Your task to perform on an android device: turn on priority inbox in the gmail app Image 0: 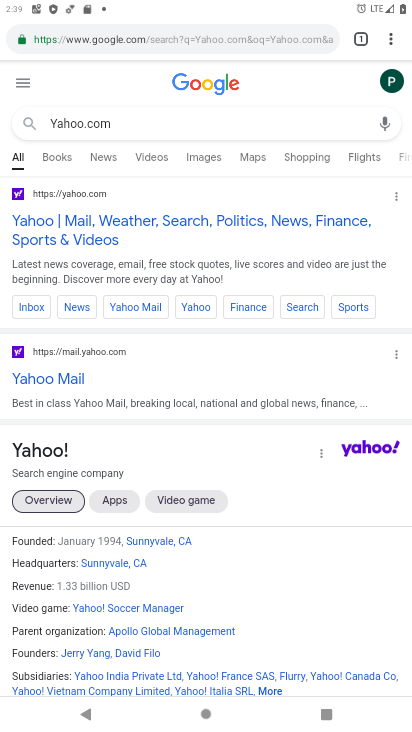
Step 0: press home button
Your task to perform on an android device: turn on priority inbox in the gmail app Image 1: 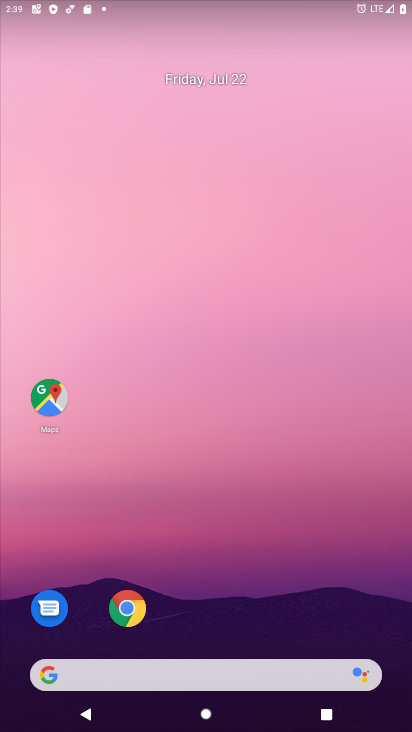
Step 1: drag from (395, 710) to (233, 73)
Your task to perform on an android device: turn on priority inbox in the gmail app Image 2: 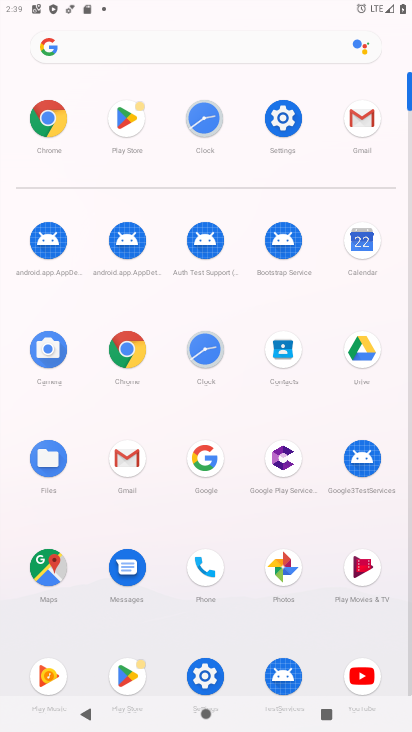
Step 2: click (137, 470)
Your task to perform on an android device: turn on priority inbox in the gmail app Image 3: 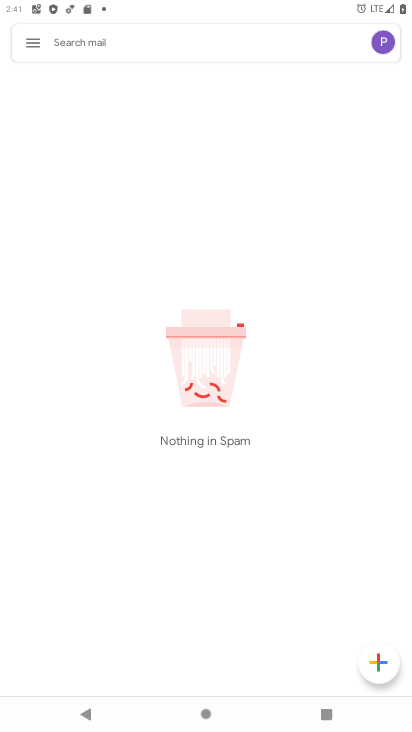
Step 3: click (32, 37)
Your task to perform on an android device: turn on priority inbox in the gmail app Image 4: 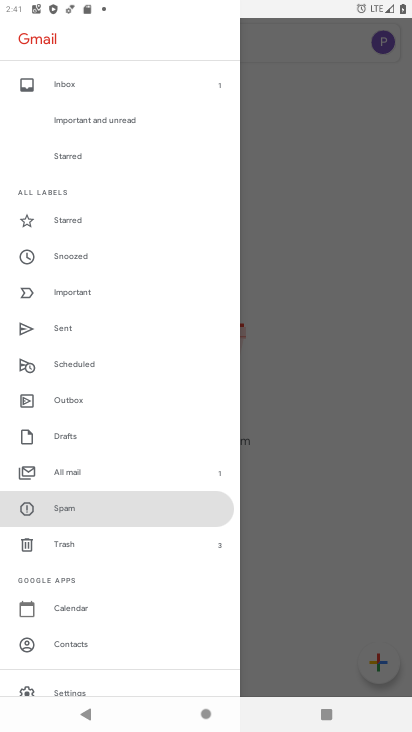
Step 4: click (56, 692)
Your task to perform on an android device: turn on priority inbox in the gmail app Image 5: 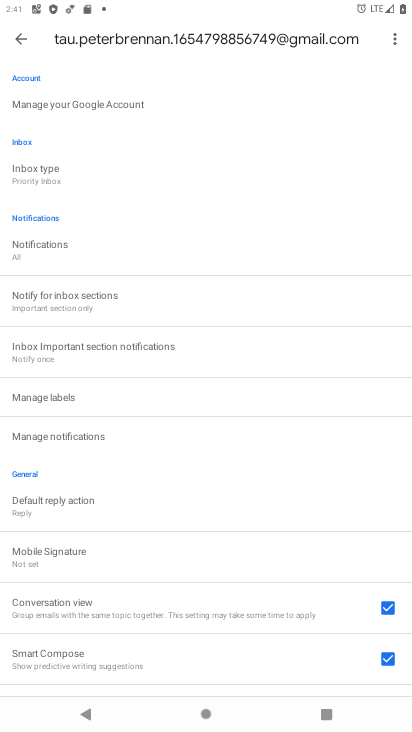
Step 5: click (29, 165)
Your task to perform on an android device: turn on priority inbox in the gmail app Image 6: 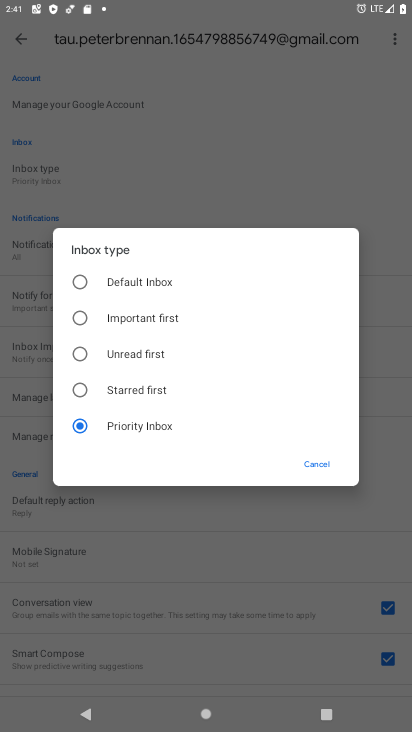
Step 6: task complete